Your task to perform on an android device: change keyboard looks Image 0: 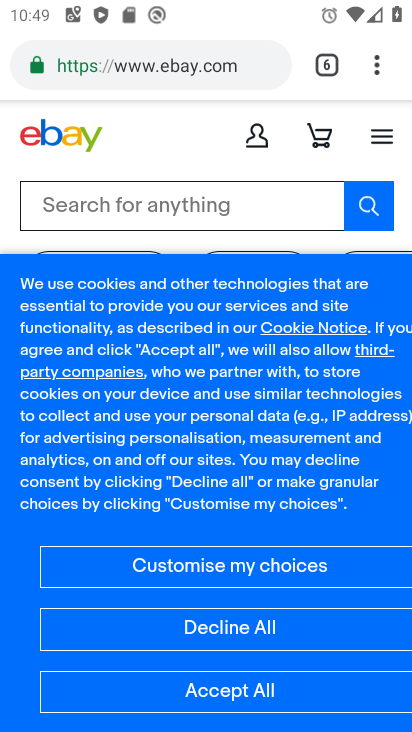
Step 0: press home button
Your task to perform on an android device: change keyboard looks Image 1: 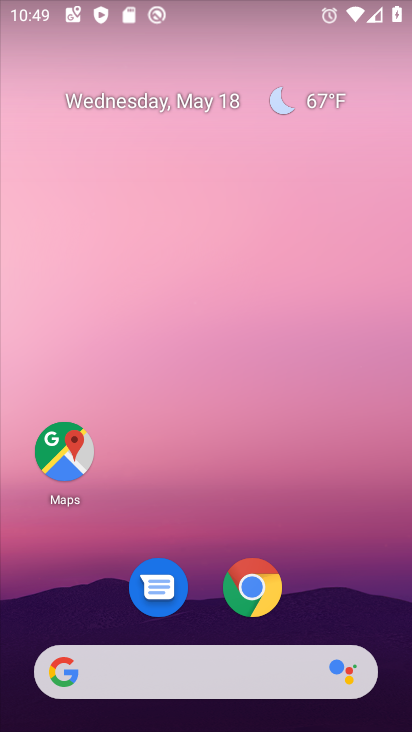
Step 1: drag from (340, 555) to (390, 254)
Your task to perform on an android device: change keyboard looks Image 2: 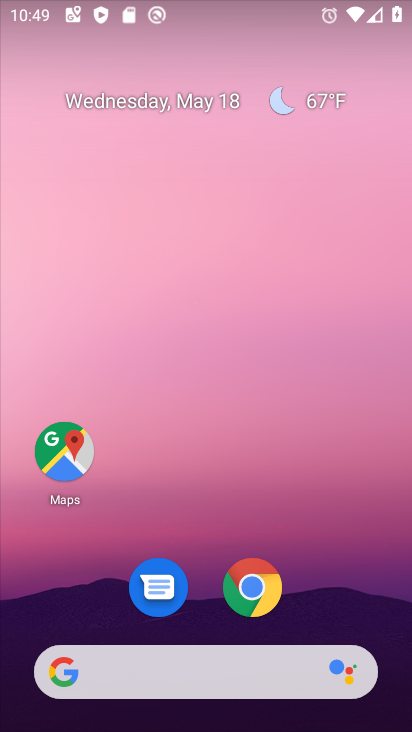
Step 2: drag from (320, 607) to (388, 211)
Your task to perform on an android device: change keyboard looks Image 3: 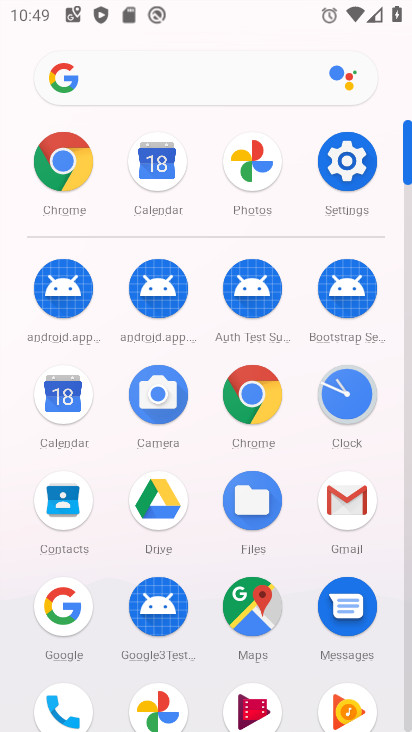
Step 3: click (320, 154)
Your task to perform on an android device: change keyboard looks Image 4: 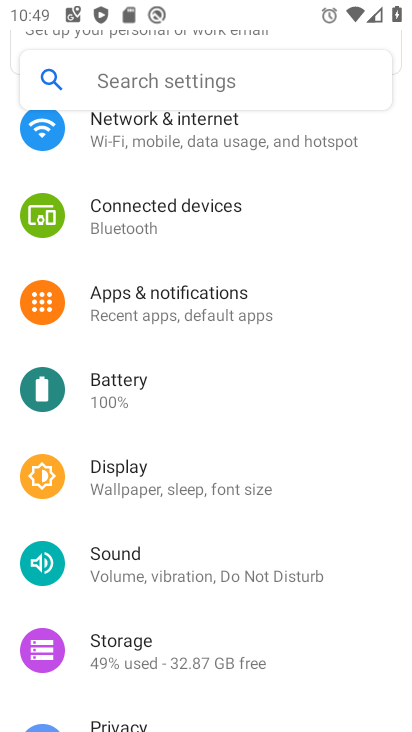
Step 4: drag from (258, 560) to (286, 308)
Your task to perform on an android device: change keyboard looks Image 5: 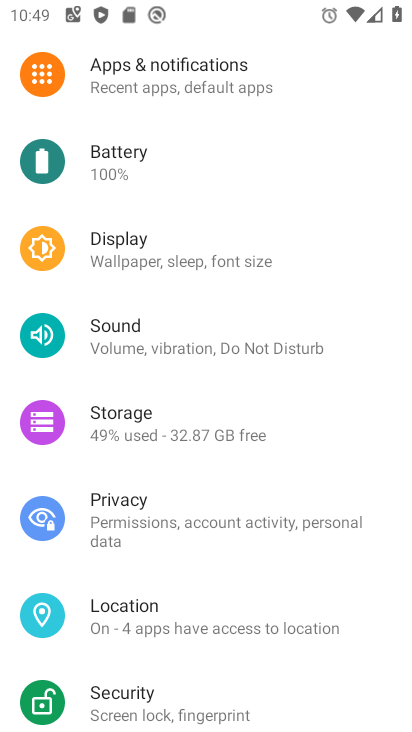
Step 5: drag from (301, 559) to (262, 378)
Your task to perform on an android device: change keyboard looks Image 6: 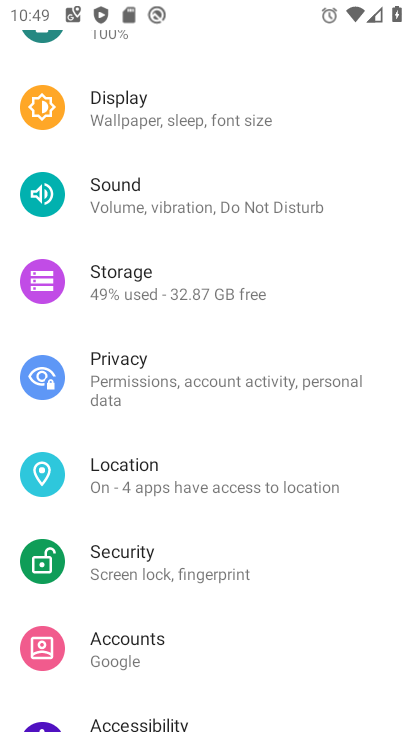
Step 6: drag from (299, 551) to (285, 197)
Your task to perform on an android device: change keyboard looks Image 7: 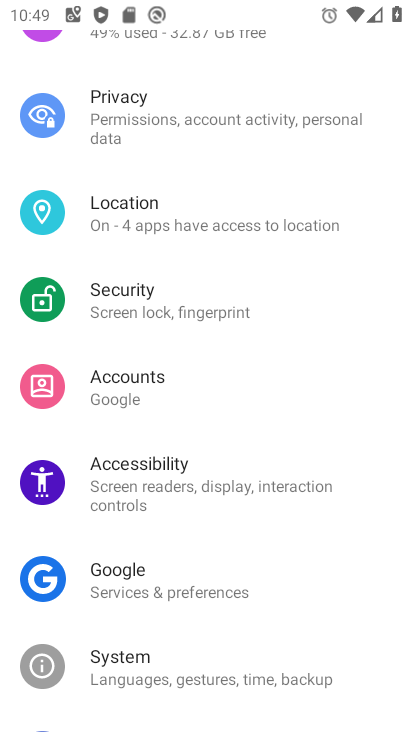
Step 7: drag from (149, 552) to (116, 312)
Your task to perform on an android device: change keyboard looks Image 8: 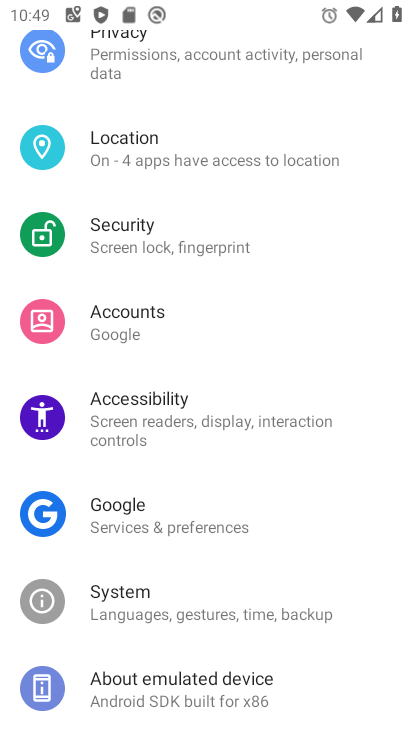
Step 8: click (206, 606)
Your task to perform on an android device: change keyboard looks Image 9: 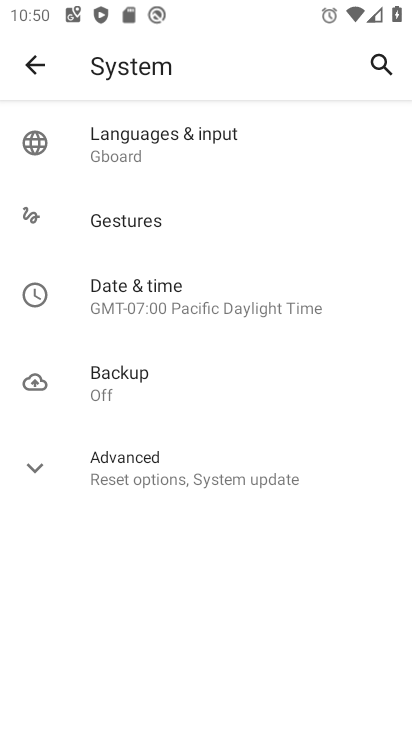
Step 9: click (97, 471)
Your task to perform on an android device: change keyboard looks Image 10: 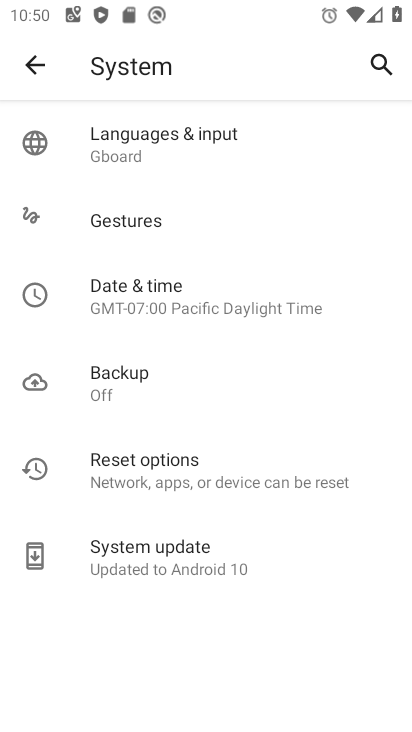
Step 10: press back button
Your task to perform on an android device: change keyboard looks Image 11: 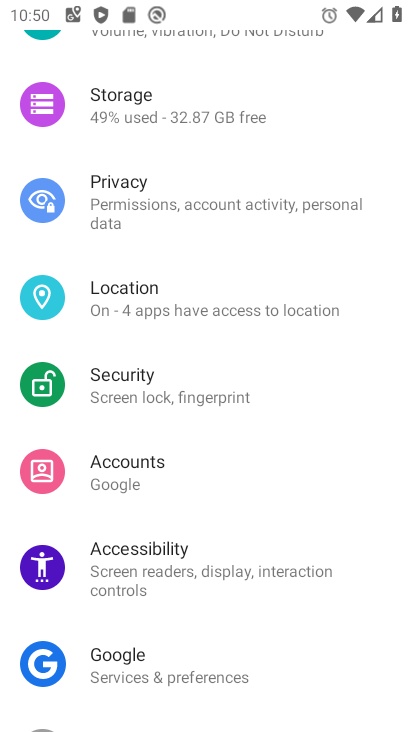
Step 11: drag from (270, 528) to (252, 131)
Your task to perform on an android device: change keyboard looks Image 12: 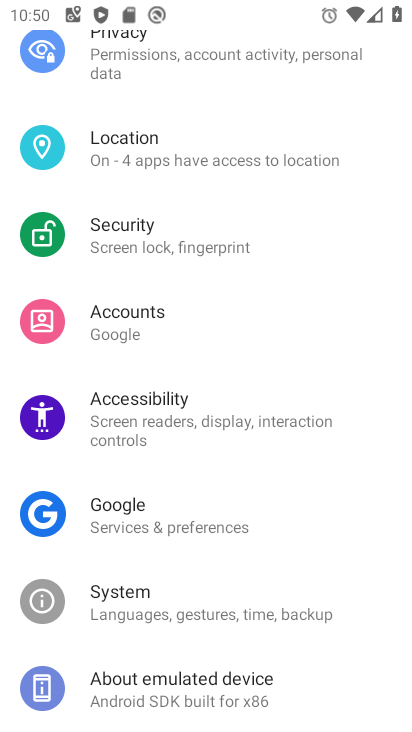
Step 12: drag from (201, 520) to (186, 237)
Your task to perform on an android device: change keyboard looks Image 13: 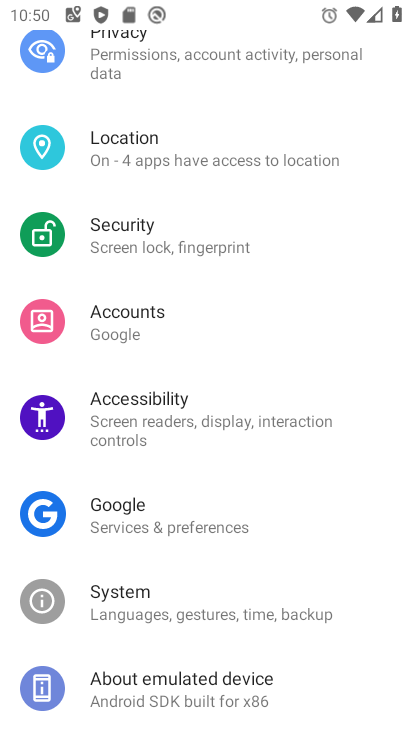
Step 13: click (174, 695)
Your task to perform on an android device: change keyboard looks Image 14: 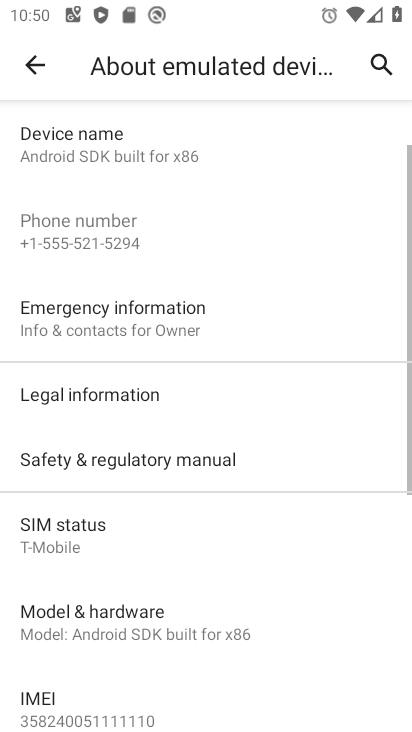
Step 14: drag from (128, 575) to (181, 260)
Your task to perform on an android device: change keyboard looks Image 15: 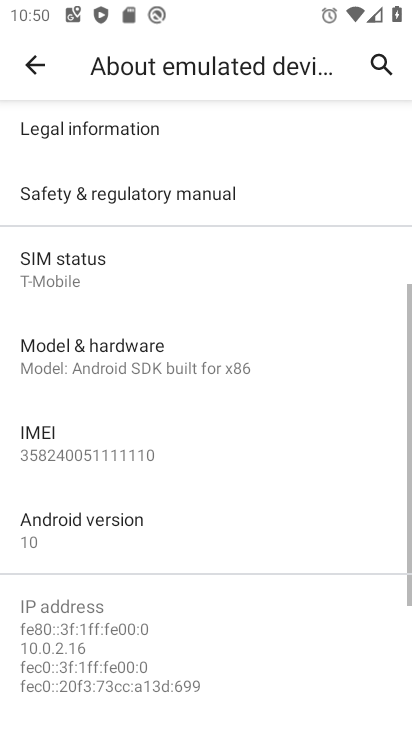
Step 15: drag from (149, 513) to (179, 251)
Your task to perform on an android device: change keyboard looks Image 16: 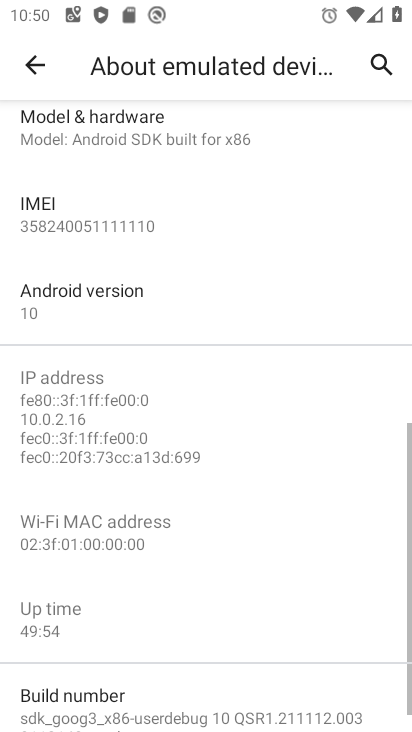
Step 16: press back button
Your task to perform on an android device: change keyboard looks Image 17: 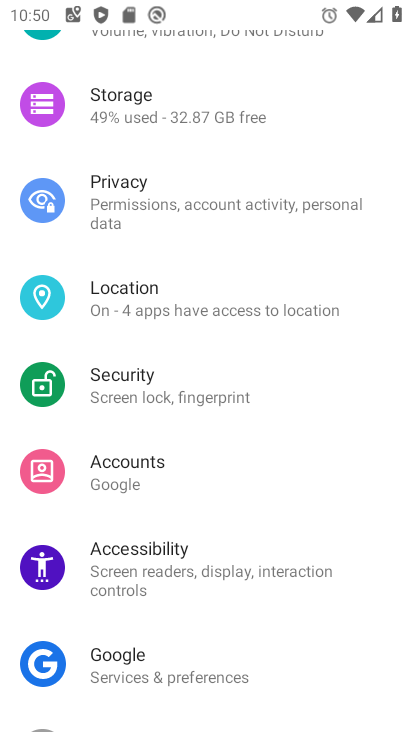
Step 17: drag from (288, 152) to (298, 497)
Your task to perform on an android device: change keyboard looks Image 18: 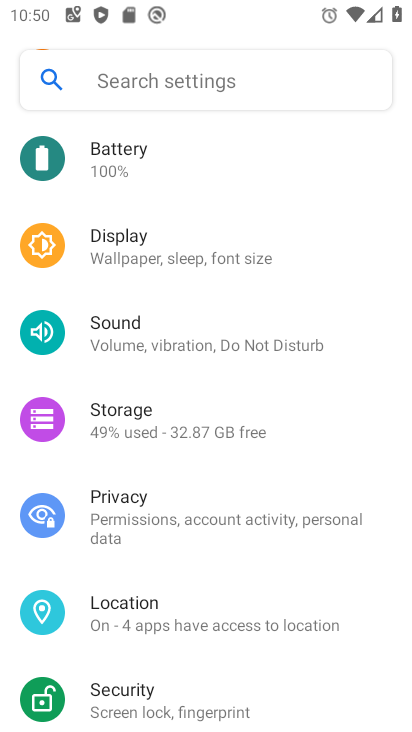
Step 18: click (207, 263)
Your task to perform on an android device: change keyboard looks Image 19: 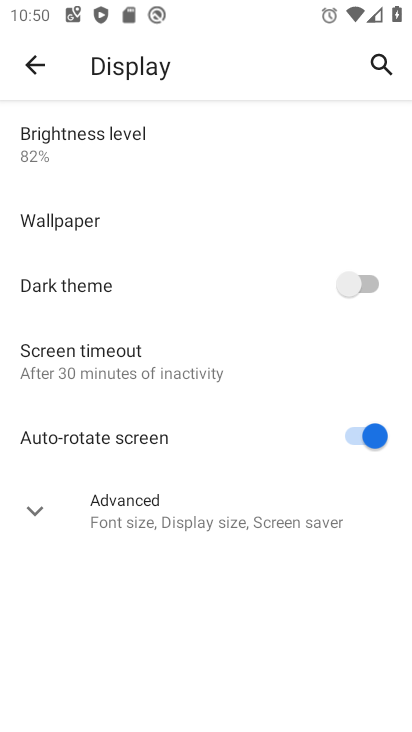
Step 19: click (92, 501)
Your task to perform on an android device: change keyboard looks Image 20: 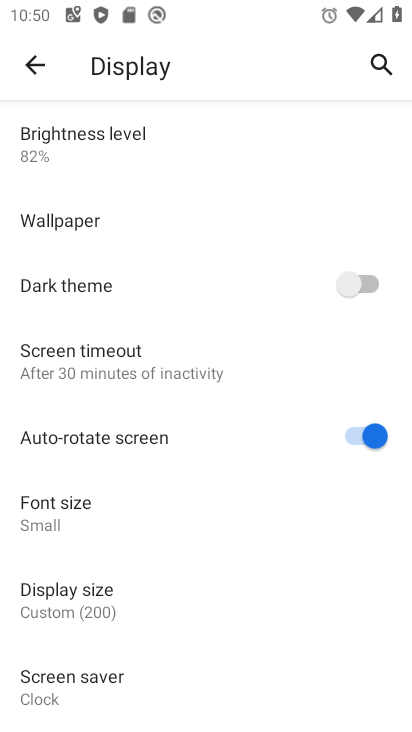
Step 20: task complete